Your task to perform on an android device: turn on notifications settings in the gmail app Image 0: 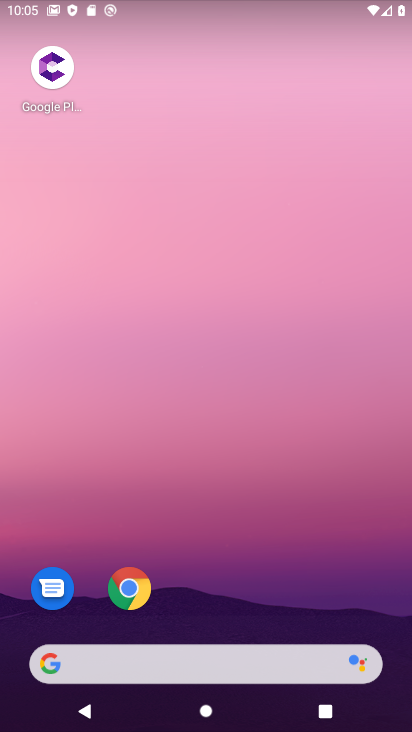
Step 0: drag from (239, 571) to (277, 222)
Your task to perform on an android device: turn on notifications settings in the gmail app Image 1: 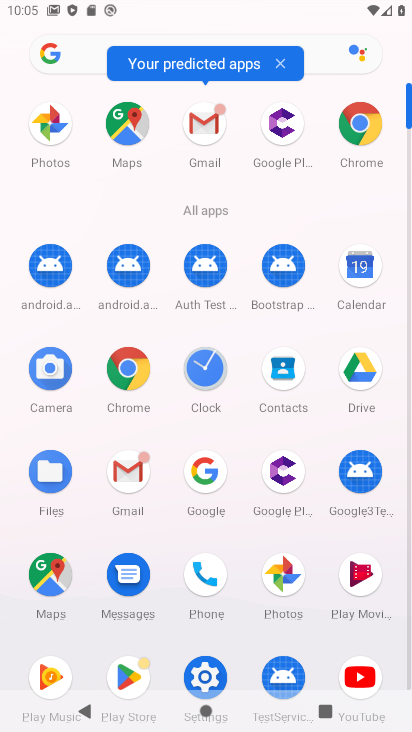
Step 1: click (123, 459)
Your task to perform on an android device: turn on notifications settings in the gmail app Image 2: 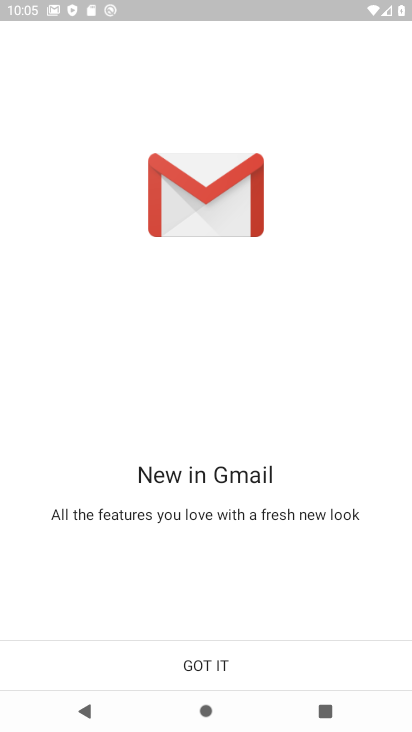
Step 2: click (237, 681)
Your task to perform on an android device: turn on notifications settings in the gmail app Image 3: 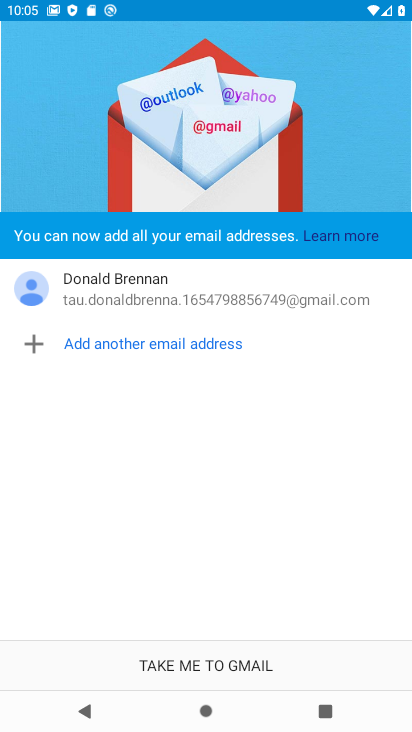
Step 3: click (236, 678)
Your task to perform on an android device: turn on notifications settings in the gmail app Image 4: 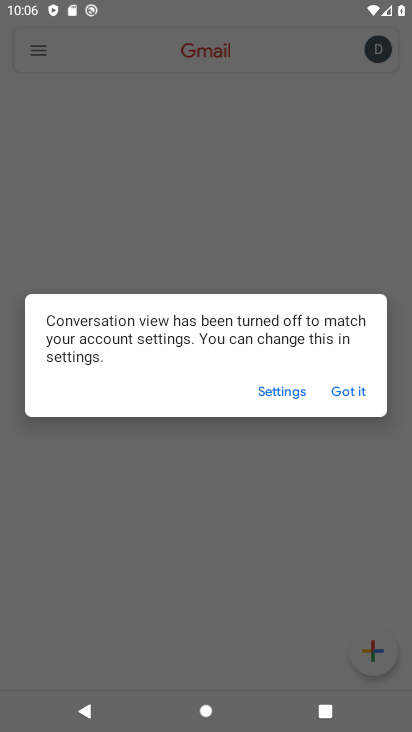
Step 4: click (346, 401)
Your task to perform on an android device: turn on notifications settings in the gmail app Image 5: 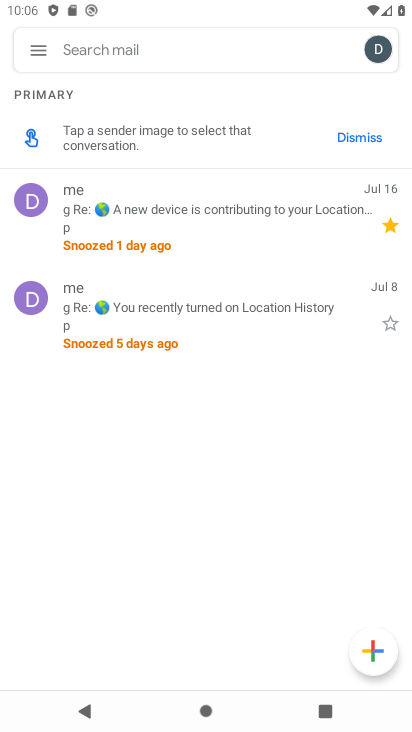
Step 5: click (52, 64)
Your task to perform on an android device: turn on notifications settings in the gmail app Image 6: 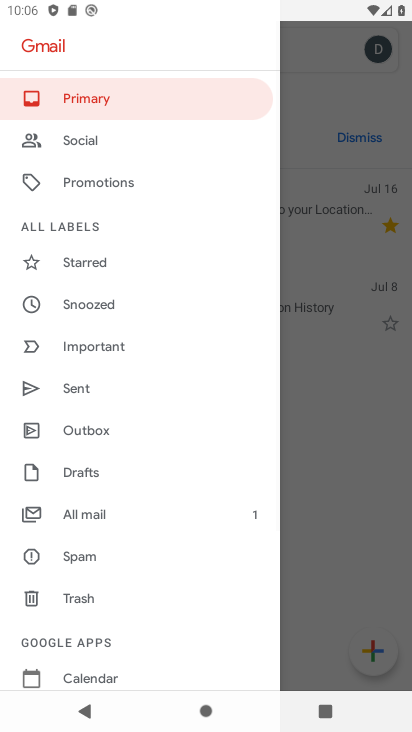
Step 6: drag from (103, 678) to (254, 227)
Your task to perform on an android device: turn on notifications settings in the gmail app Image 7: 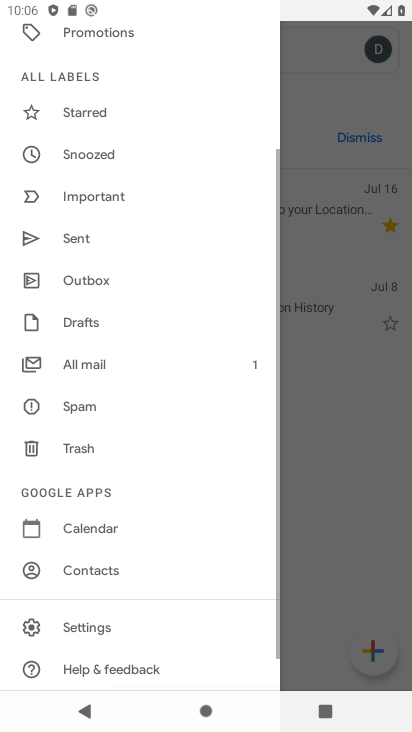
Step 7: click (139, 617)
Your task to perform on an android device: turn on notifications settings in the gmail app Image 8: 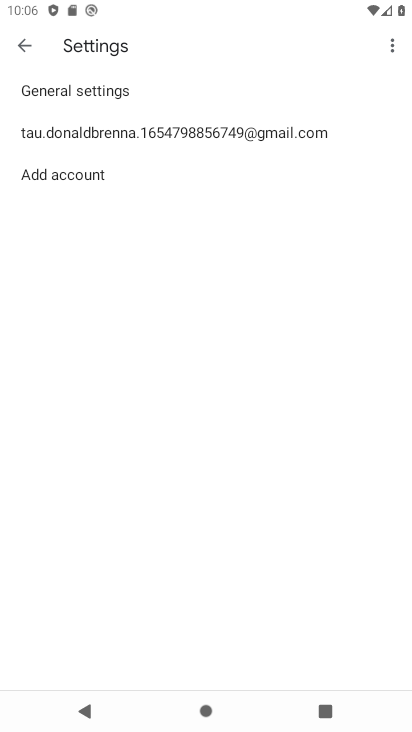
Step 8: click (160, 139)
Your task to perform on an android device: turn on notifications settings in the gmail app Image 9: 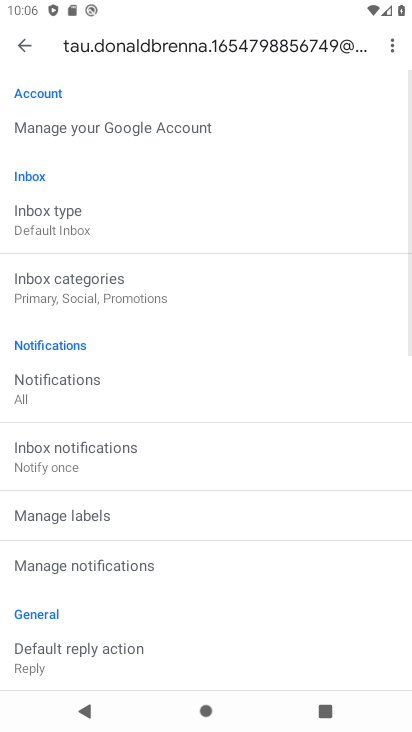
Step 9: drag from (140, 571) to (161, 383)
Your task to perform on an android device: turn on notifications settings in the gmail app Image 10: 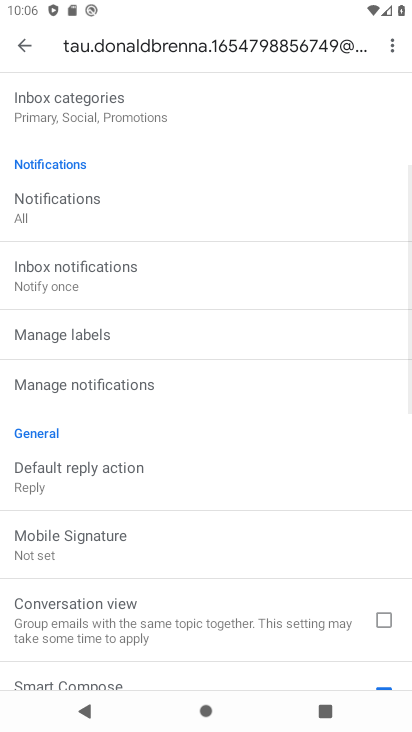
Step 10: click (155, 408)
Your task to perform on an android device: turn on notifications settings in the gmail app Image 11: 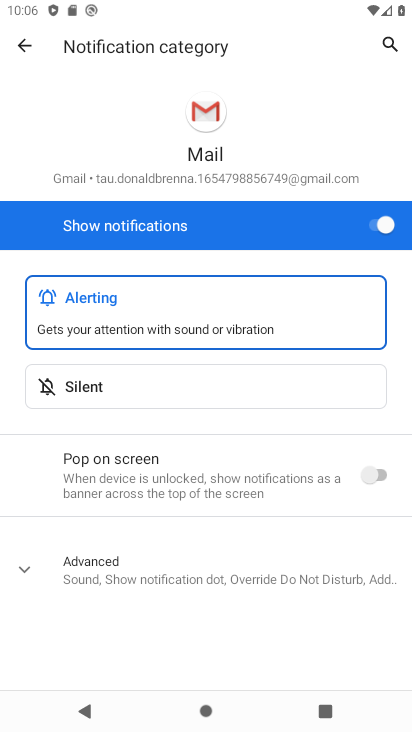
Step 11: task complete